Your task to perform on an android device: find snoozed emails in the gmail app Image 0: 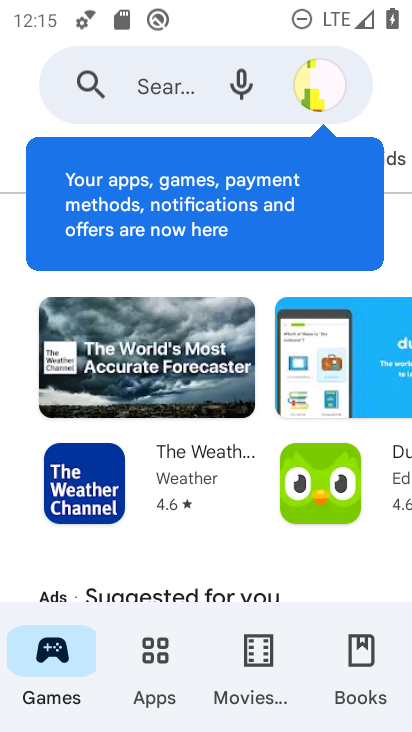
Step 0: press home button
Your task to perform on an android device: find snoozed emails in the gmail app Image 1: 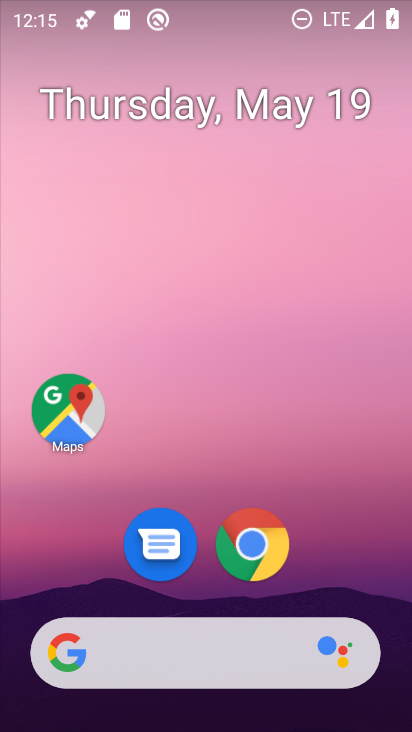
Step 1: drag from (357, 571) to (302, 79)
Your task to perform on an android device: find snoozed emails in the gmail app Image 2: 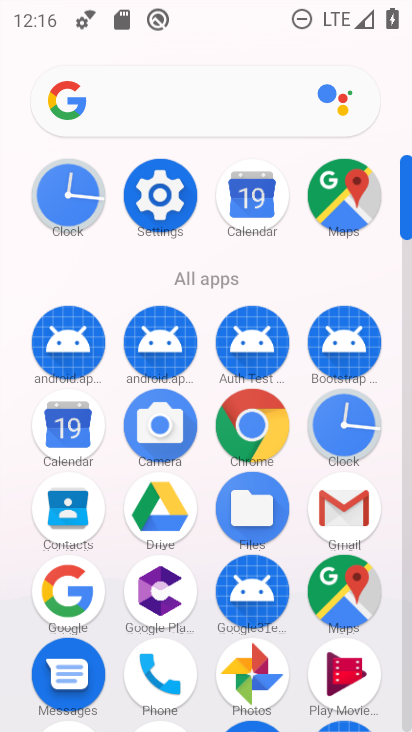
Step 2: click (356, 502)
Your task to perform on an android device: find snoozed emails in the gmail app Image 3: 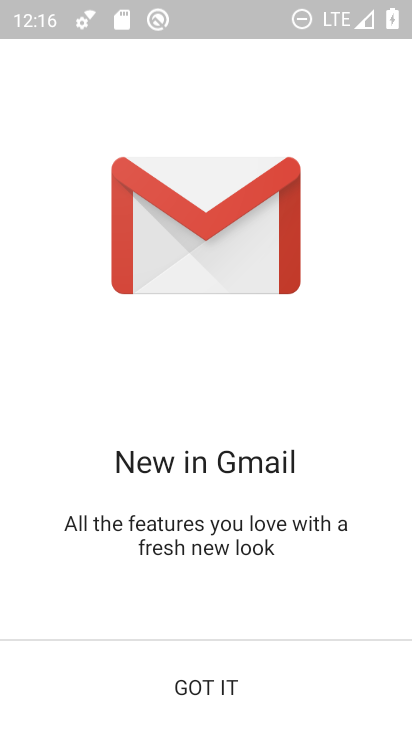
Step 3: click (233, 628)
Your task to perform on an android device: find snoozed emails in the gmail app Image 4: 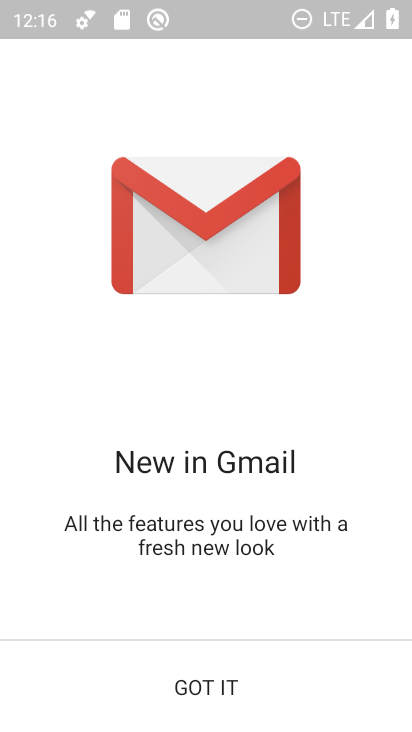
Step 4: click (233, 666)
Your task to perform on an android device: find snoozed emails in the gmail app Image 5: 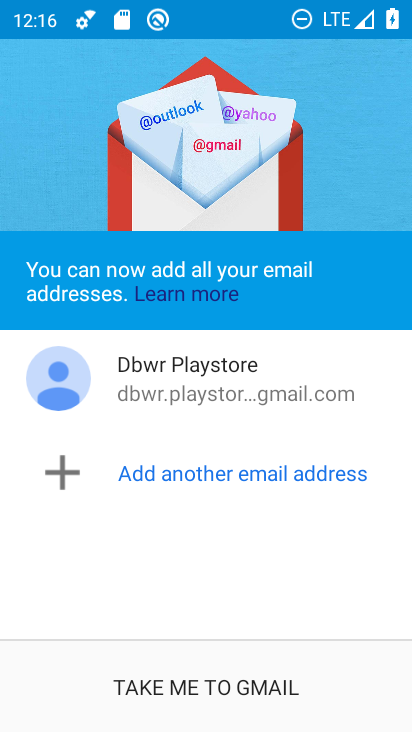
Step 5: click (233, 666)
Your task to perform on an android device: find snoozed emails in the gmail app Image 6: 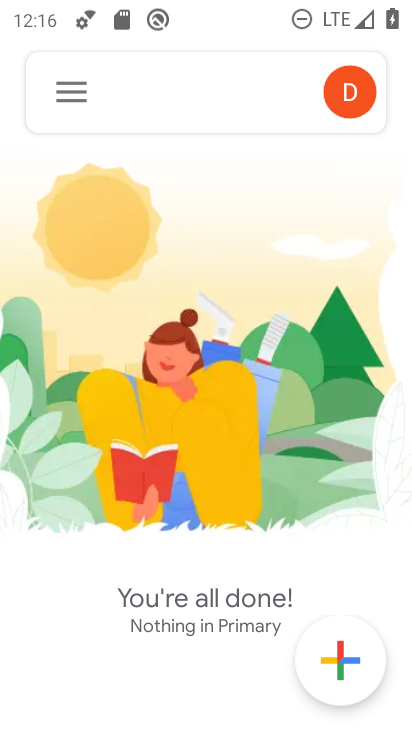
Step 6: click (82, 110)
Your task to perform on an android device: find snoozed emails in the gmail app Image 7: 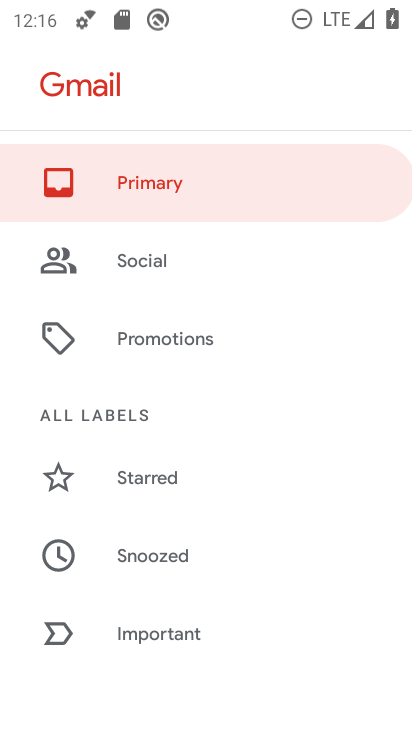
Step 7: click (168, 545)
Your task to perform on an android device: find snoozed emails in the gmail app Image 8: 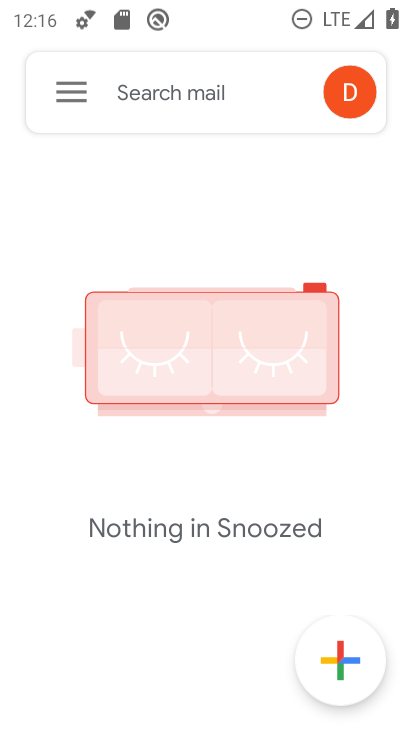
Step 8: task complete